Your task to perform on an android device: Search for Italian restaurants on Maps Image 0: 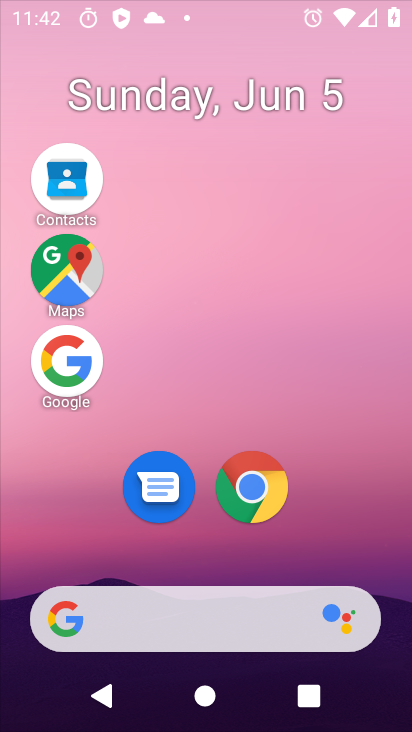
Step 0: drag from (269, 595) to (295, 58)
Your task to perform on an android device: Search for Italian restaurants on Maps Image 1: 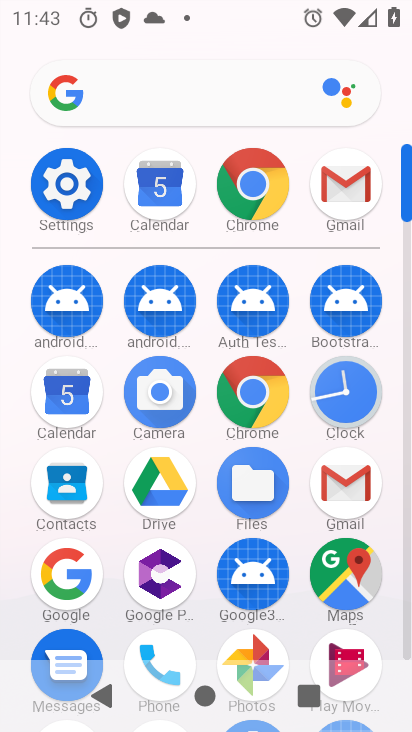
Step 1: drag from (257, 457) to (258, 223)
Your task to perform on an android device: Search for Italian restaurants on Maps Image 2: 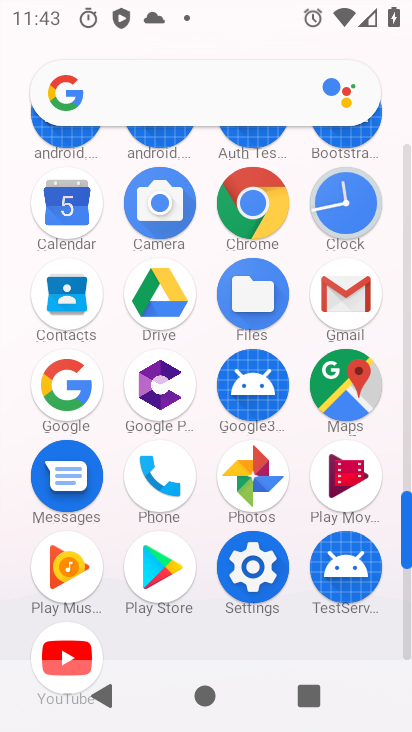
Step 2: click (361, 386)
Your task to perform on an android device: Search for Italian restaurants on Maps Image 3: 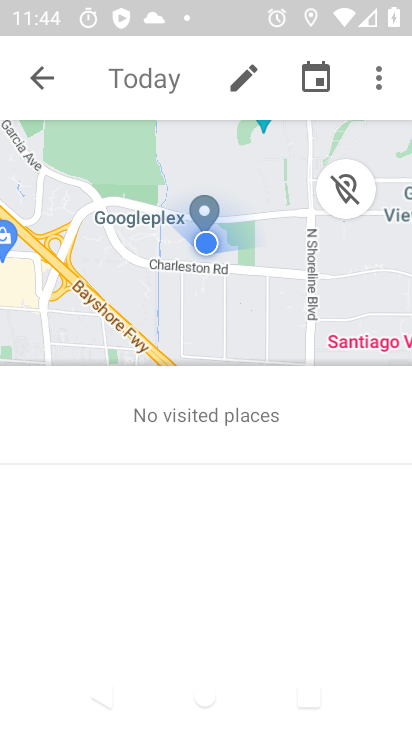
Step 3: click (45, 76)
Your task to perform on an android device: Search for Italian restaurants on Maps Image 4: 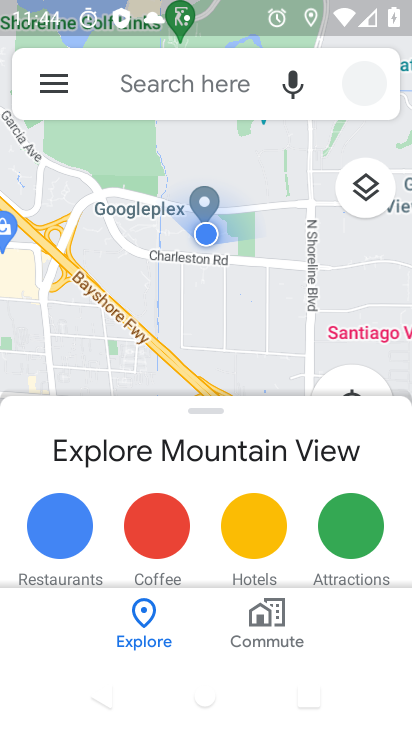
Step 4: click (171, 84)
Your task to perform on an android device: Search for Italian restaurants on Maps Image 5: 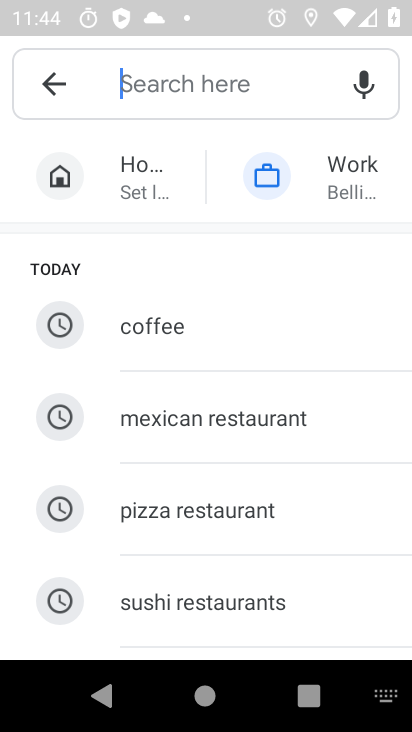
Step 5: type "italian"
Your task to perform on an android device: Search for Italian restaurants on Maps Image 6: 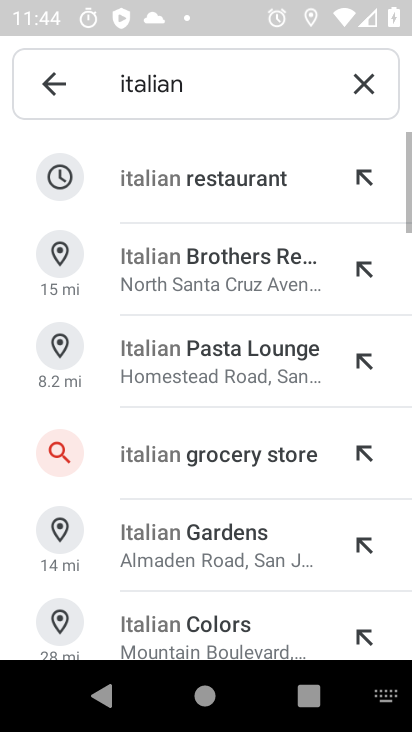
Step 6: click (182, 187)
Your task to perform on an android device: Search for Italian restaurants on Maps Image 7: 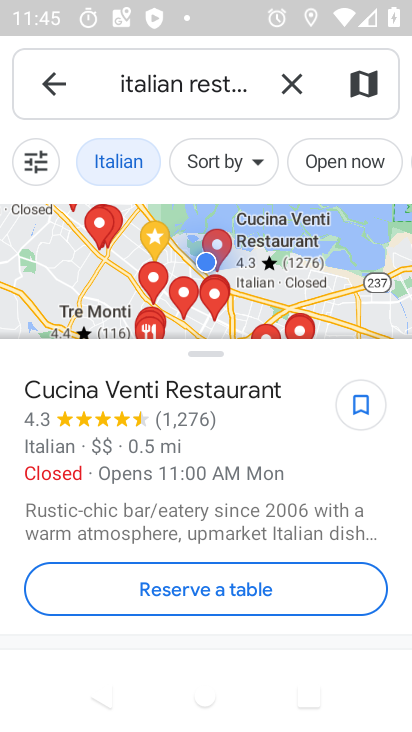
Step 7: task complete